Your task to perform on an android device: open app "Instagram" (install if not already installed), go to login, and select forgot password Image 0: 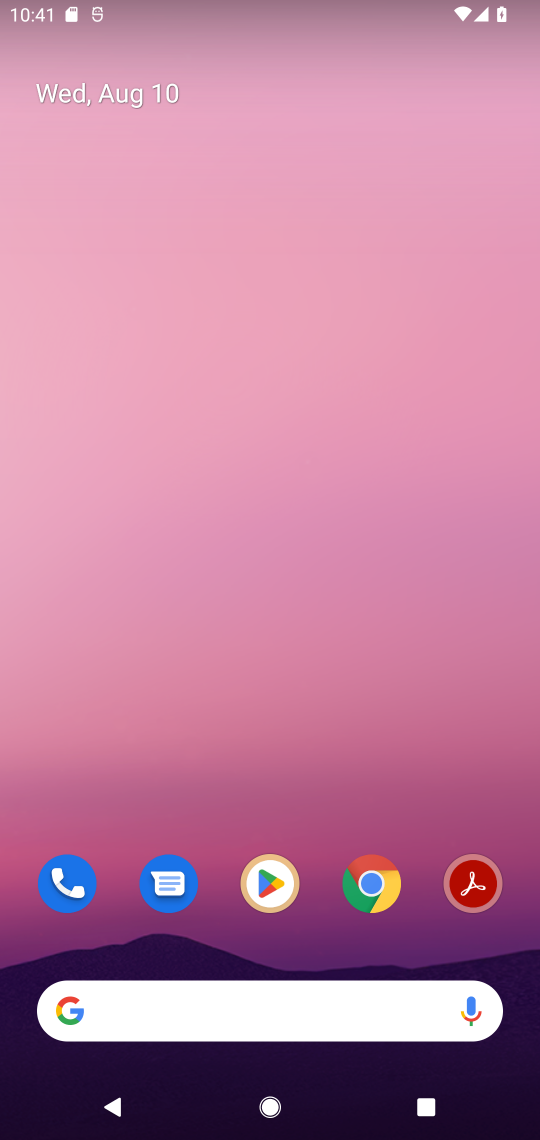
Step 0: drag from (326, 854) to (279, 173)
Your task to perform on an android device: open app "Instagram" (install if not already installed), go to login, and select forgot password Image 1: 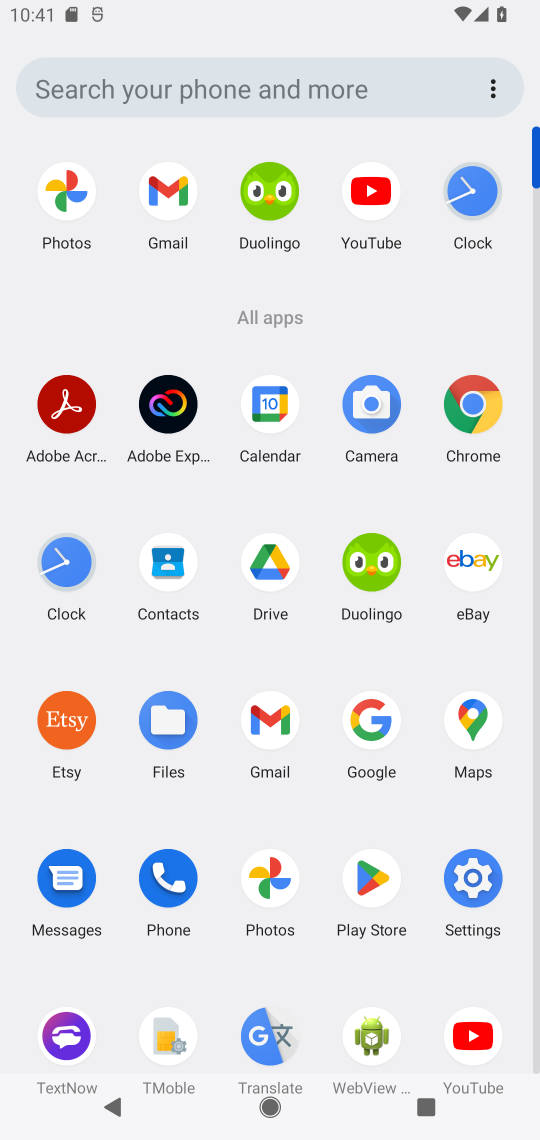
Step 1: click (367, 882)
Your task to perform on an android device: open app "Instagram" (install if not already installed), go to login, and select forgot password Image 2: 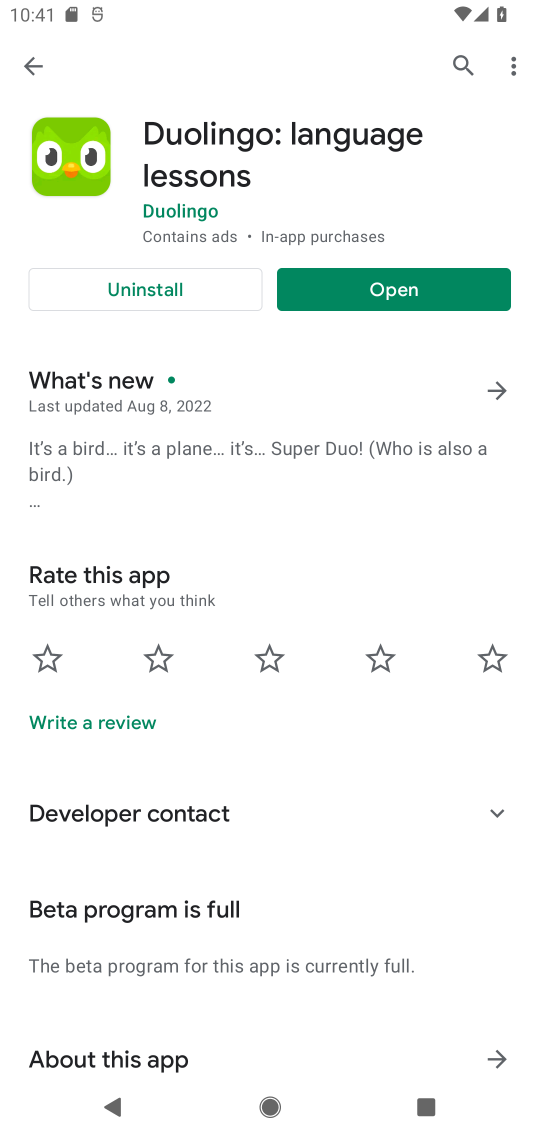
Step 2: type "Instagram"
Your task to perform on an android device: open app "Instagram" (install if not already installed), go to login, and select forgot password Image 3: 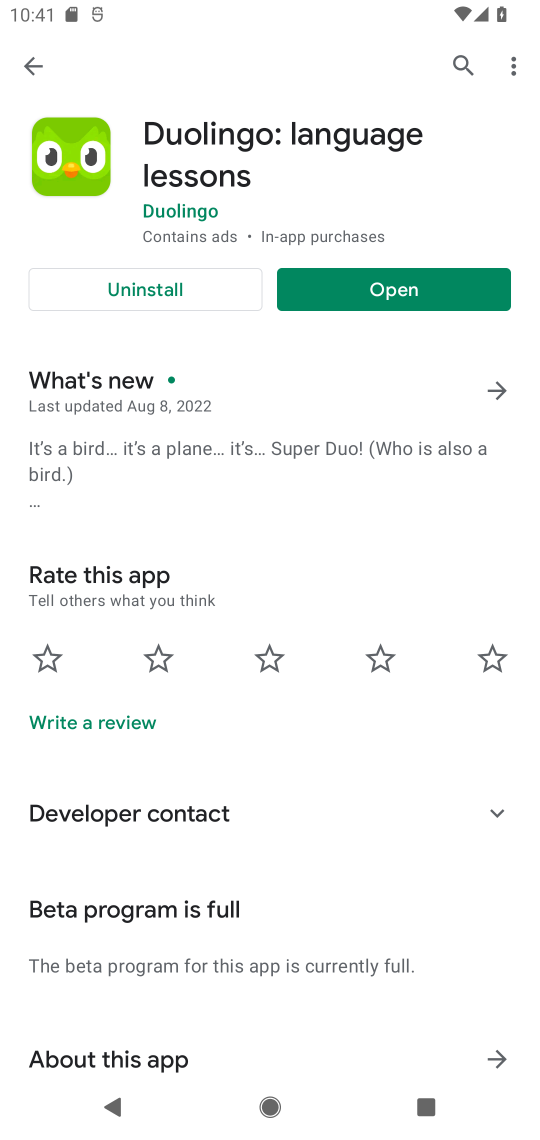
Step 3: type ""
Your task to perform on an android device: open app "Instagram" (install if not already installed), go to login, and select forgot password Image 4: 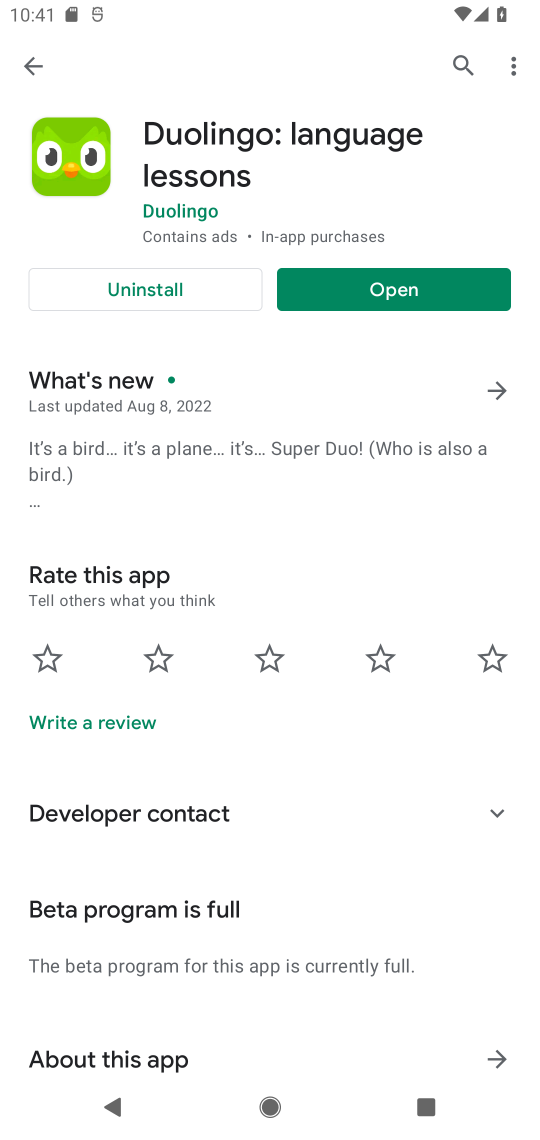
Step 4: click (452, 61)
Your task to perform on an android device: open app "Instagram" (install if not already installed), go to login, and select forgot password Image 5: 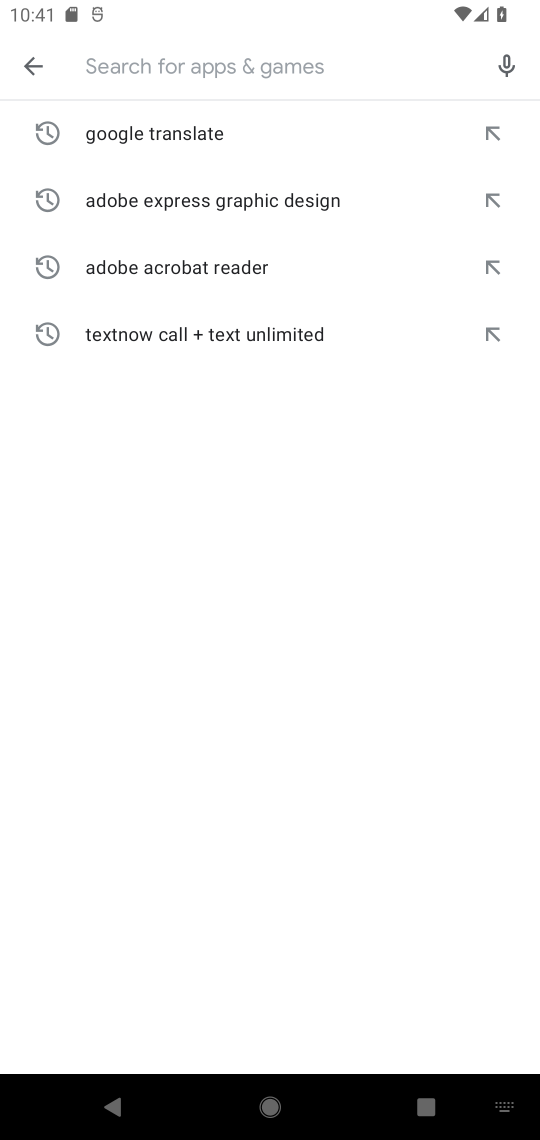
Step 5: type "Instagram"
Your task to perform on an android device: open app "Instagram" (install if not already installed), go to login, and select forgot password Image 6: 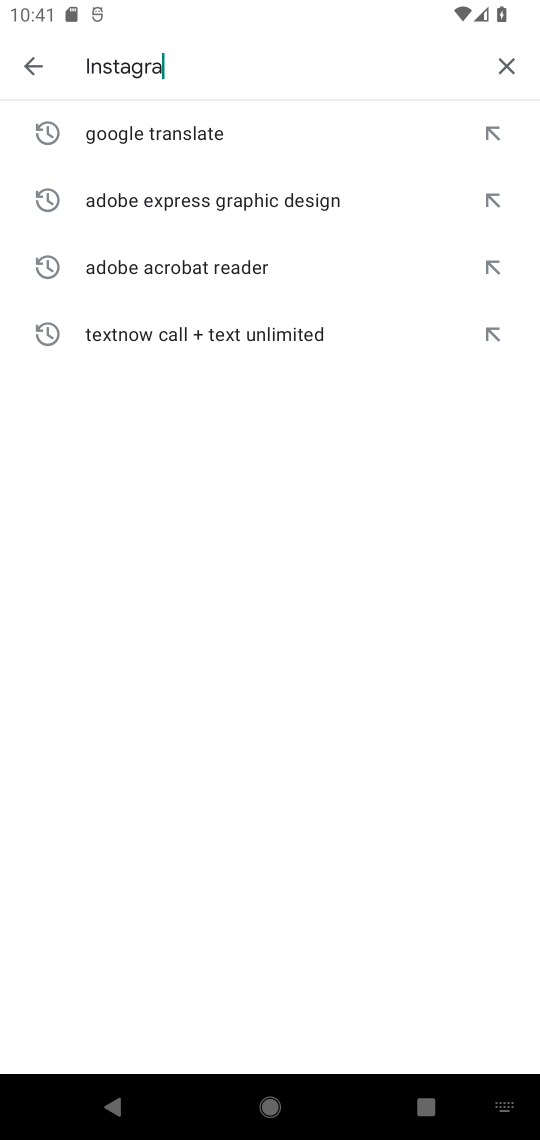
Step 6: type ""
Your task to perform on an android device: open app "Instagram" (install if not already installed), go to login, and select forgot password Image 7: 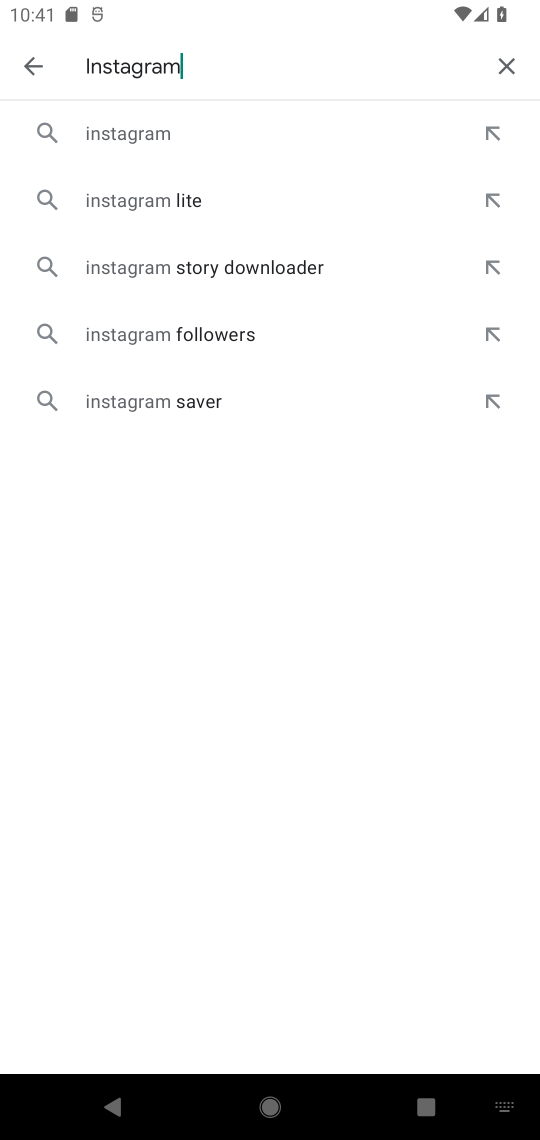
Step 7: click (145, 125)
Your task to perform on an android device: open app "Instagram" (install if not already installed), go to login, and select forgot password Image 8: 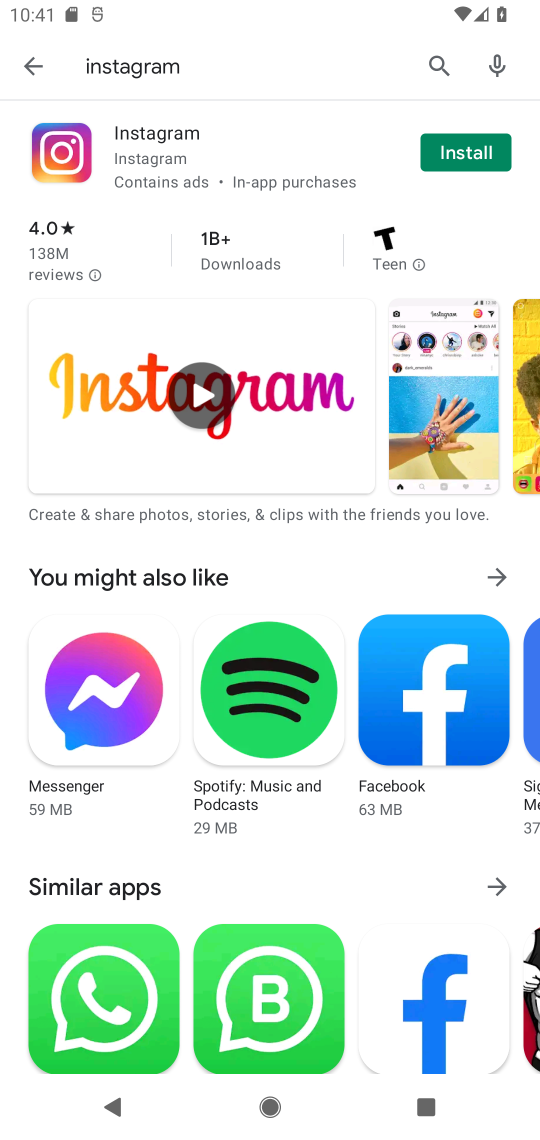
Step 8: click (448, 156)
Your task to perform on an android device: open app "Instagram" (install if not already installed), go to login, and select forgot password Image 9: 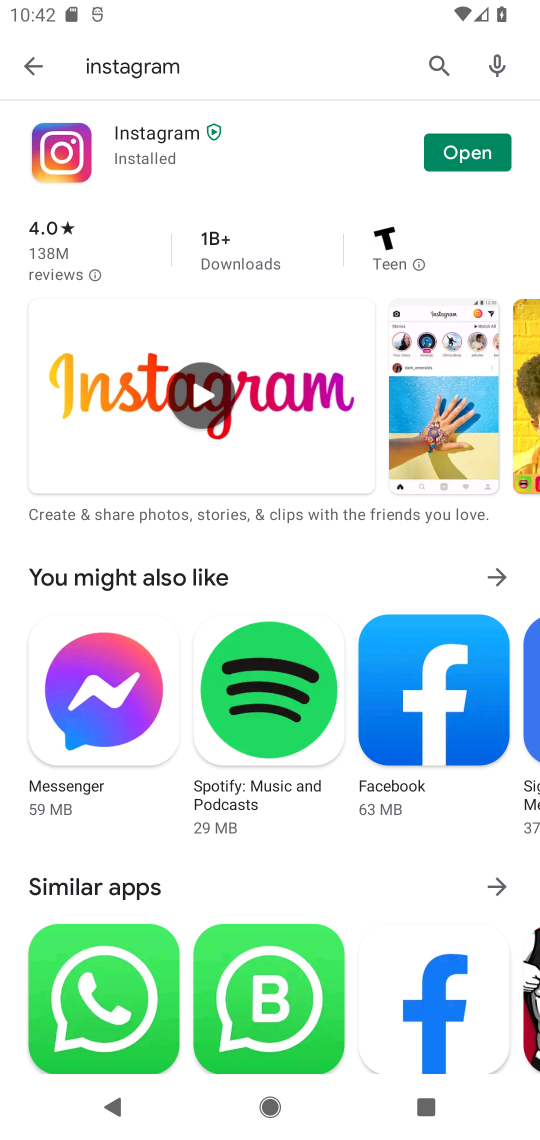
Step 9: click (458, 148)
Your task to perform on an android device: open app "Instagram" (install if not already installed), go to login, and select forgot password Image 10: 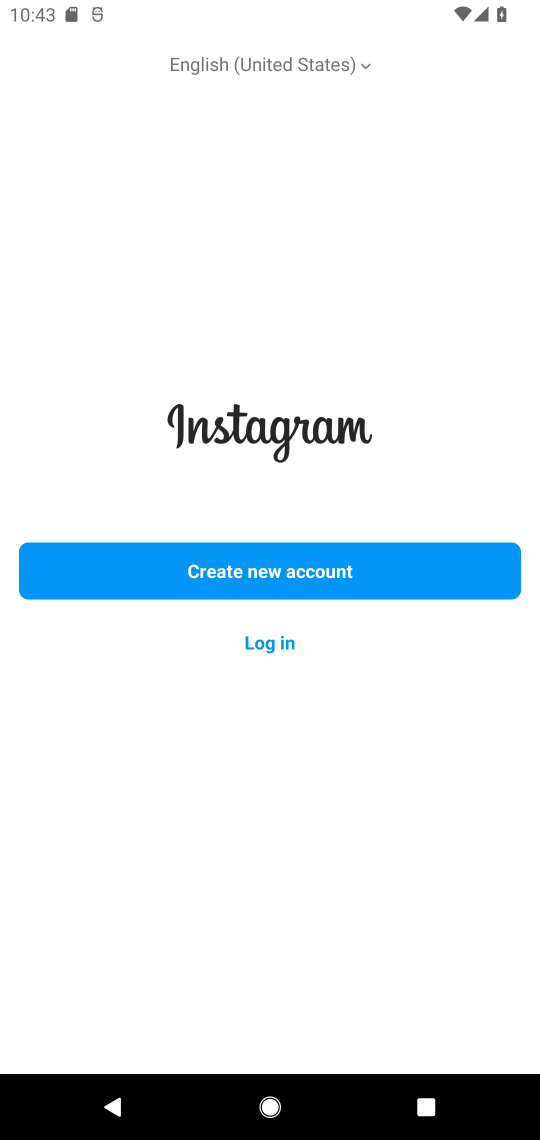
Step 10: click (278, 639)
Your task to perform on an android device: open app "Instagram" (install if not already installed), go to login, and select forgot password Image 11: 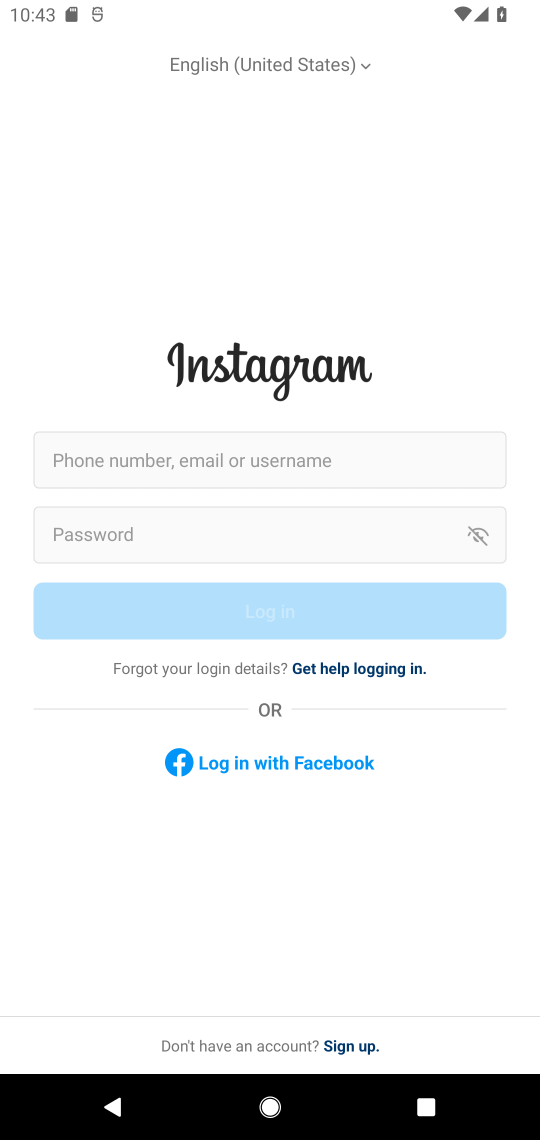
Step 11: task complete